Your task to perform on an android device: Go to display settings Image 0: 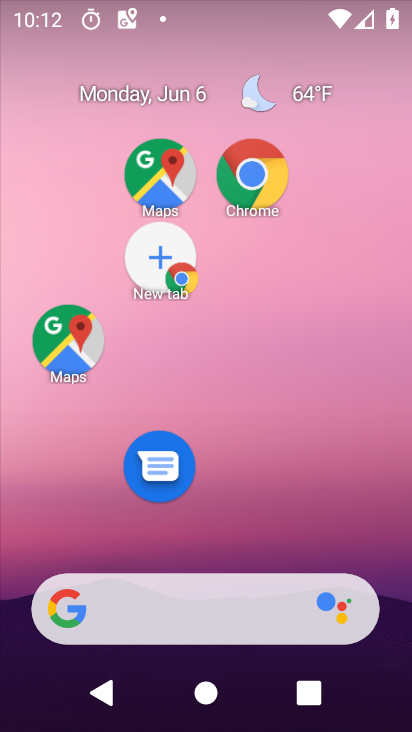
Step 0: click (229, 40)
Your task to perform on an android device: Go to display settings Image 1: 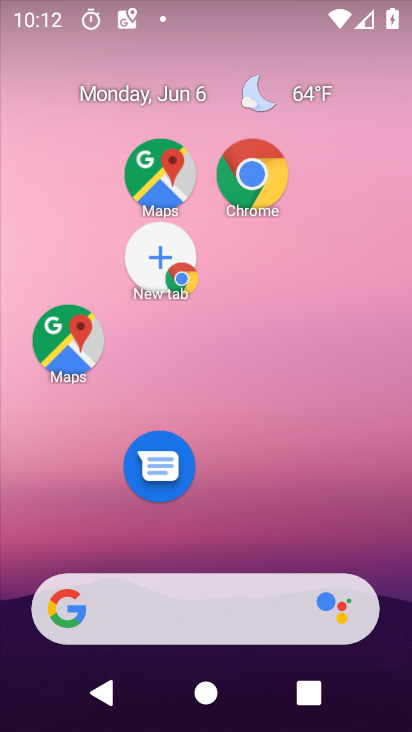
Step 1: drag from (244, 694) to (234, 37)
Your task to perform on an android device: Go to display settings Image 2: 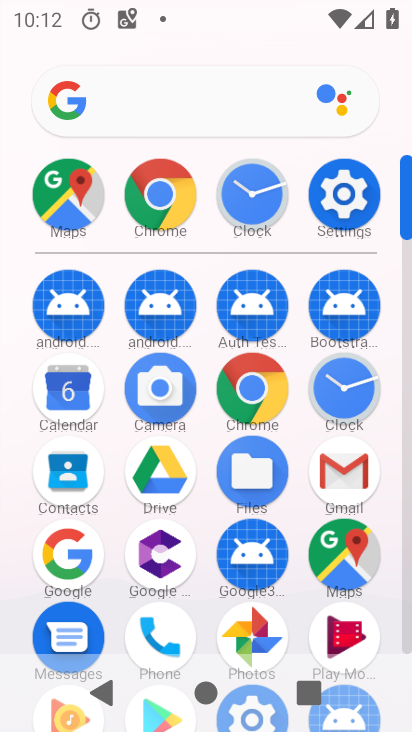
Step 2: click (352, 193)
Your task to perform on an android device: Go to display settings Image 3: 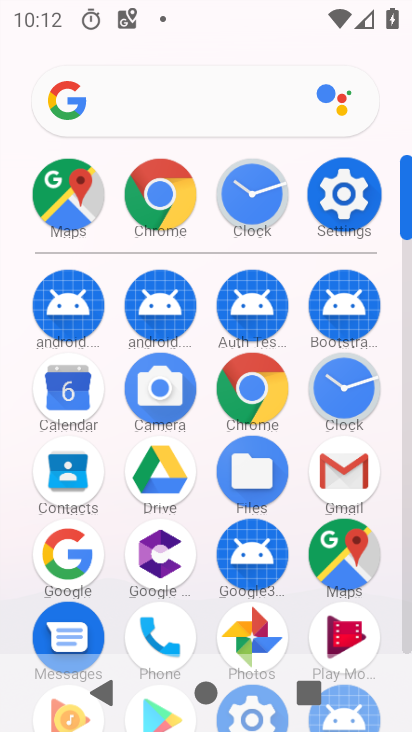
Step 3: click (352, 193)
Your task to perform on an android device: Go to display settings Image 4: 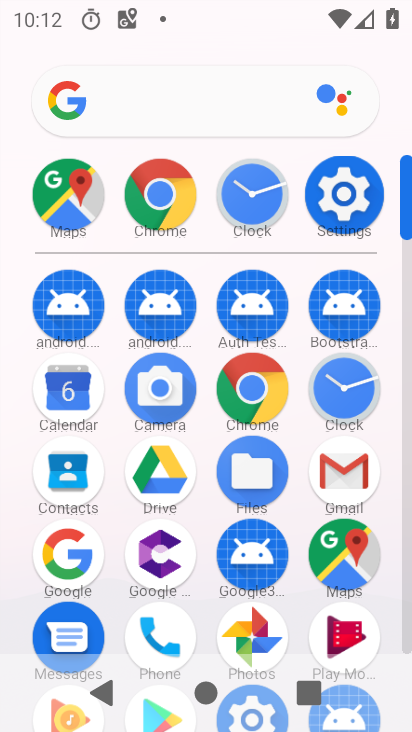
Step 4: click (352, 193)
Your task to perform on an android device: Go to display settings Image 5: 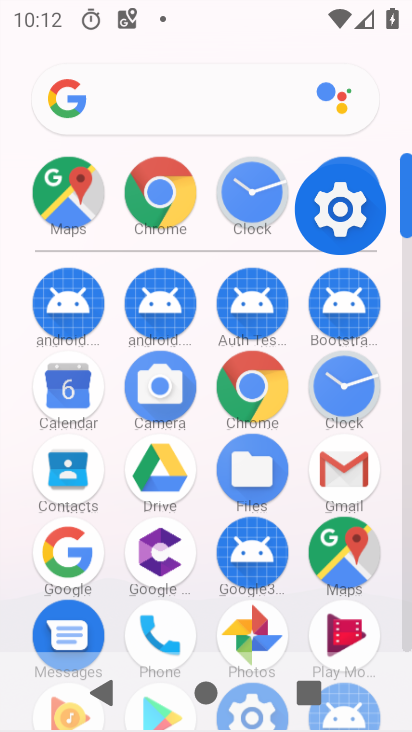
Step 5: click (352, 193)
Your task to perform on an android device: Go to display settings Image 6: 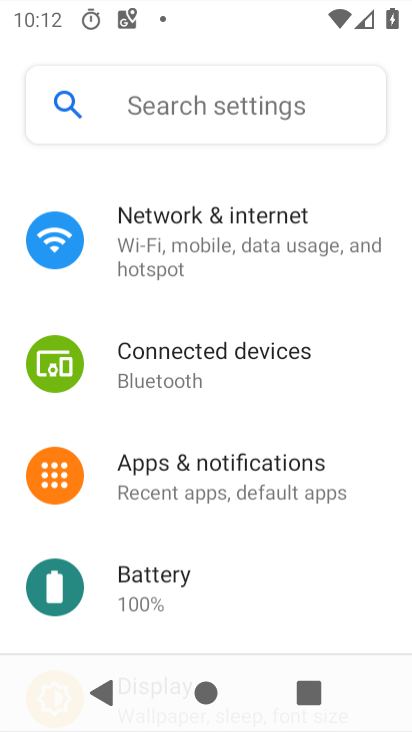
Step 6: click (352, 193)
Your task to perform on an android device: Go to display settings Image 7: 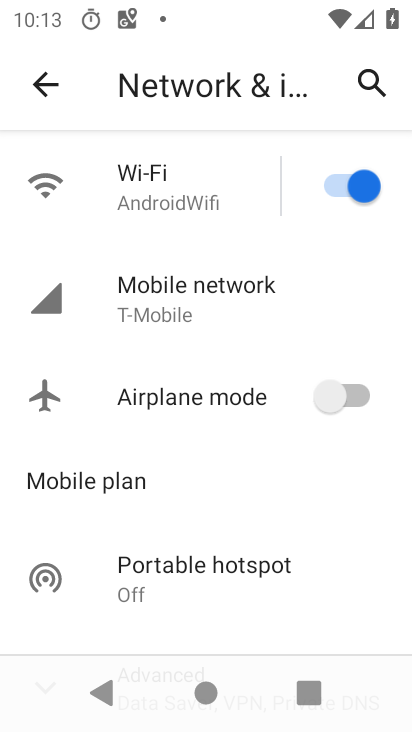
Step 7: click (43, 95)
Your task to perform on an android device: Go to display settings Image 8: 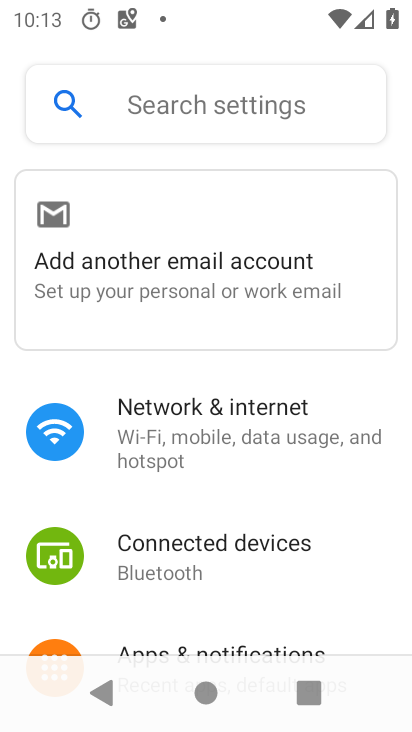
Step 8: drag from (173, 343) to (103, 91)
Your task to perform on an android device: Go to display settings Image 9: 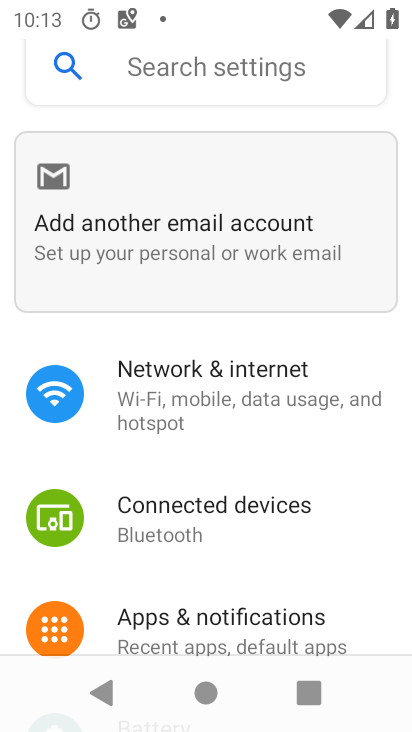
Step 9: drag from (244, 416) to (213, 218)
Your task to perform on an android device: Go to display settings Image 10: 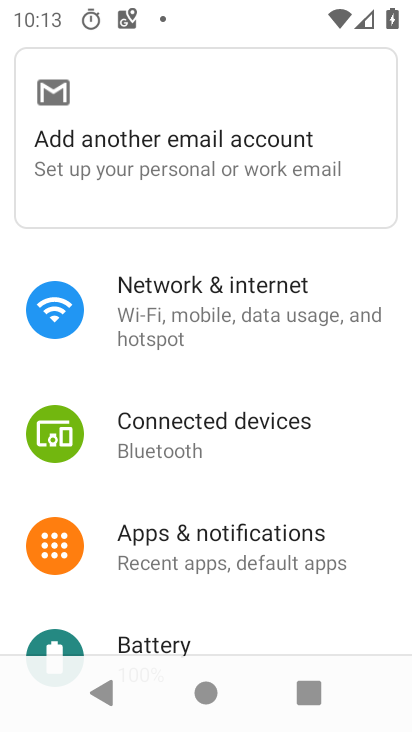
Step 10: drag from (288, 465) to (243, 211)
Your task to perform on an android device: Go to display settings Image 11: 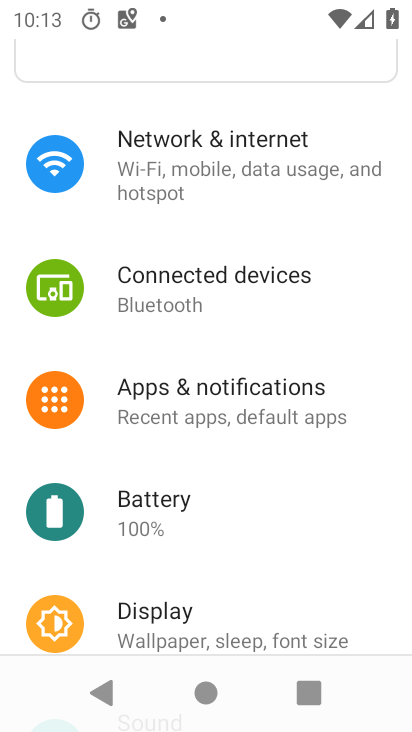
Step 11: drag from (282, 466) to (236, 224)
Your task to perform on an android device: Go to display settings Image 12: 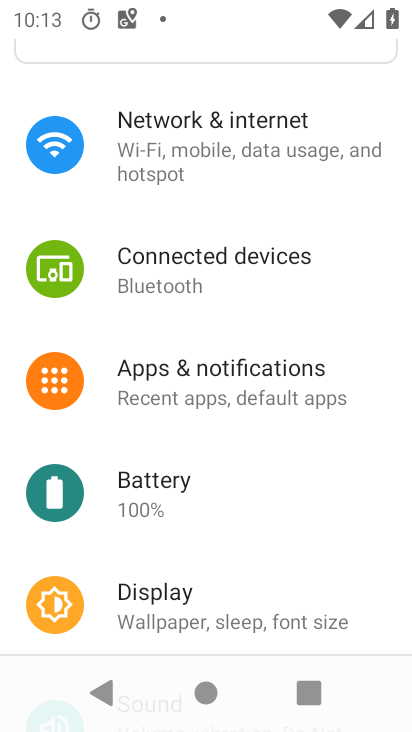
Step 12: drag from (268, 468) to (193, 191)
Your task to perform on an android device: Go to display settings Image 13: 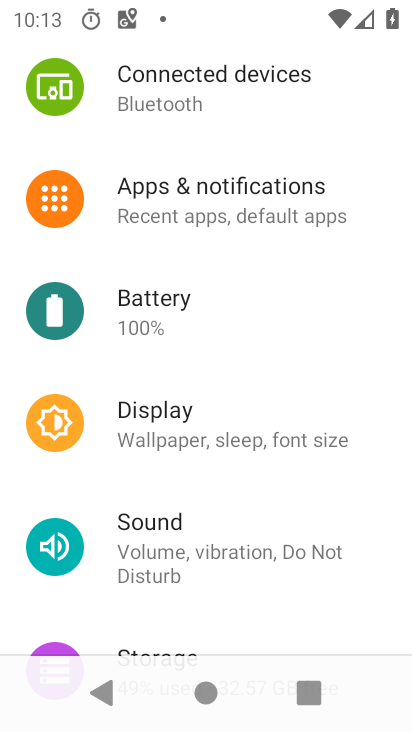
Step 13: drag from (200, 470) to (169, 125)
Your task to perform on an android device: Go to display settings Image 14: 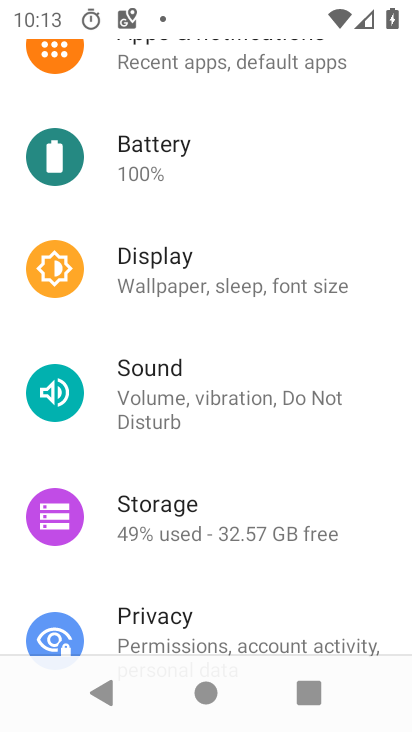
Step 14: click (131, 185)
Your task to perform on an android device: Go to display settings Image 15: 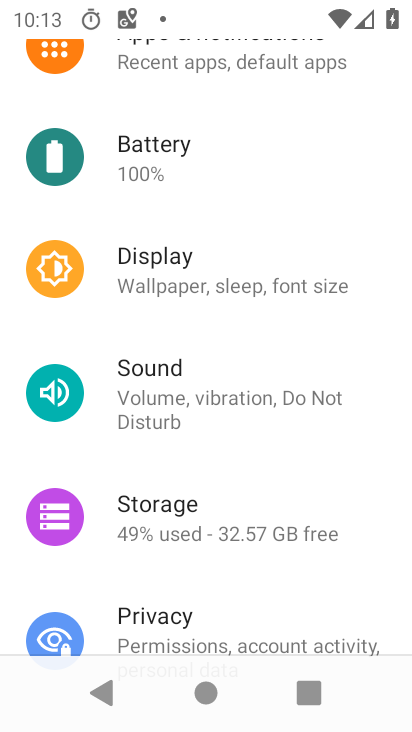
Step 15: drag from (212, 237) to (193, 94)
Your task to perform on an android device: Go to display settings Image 16: 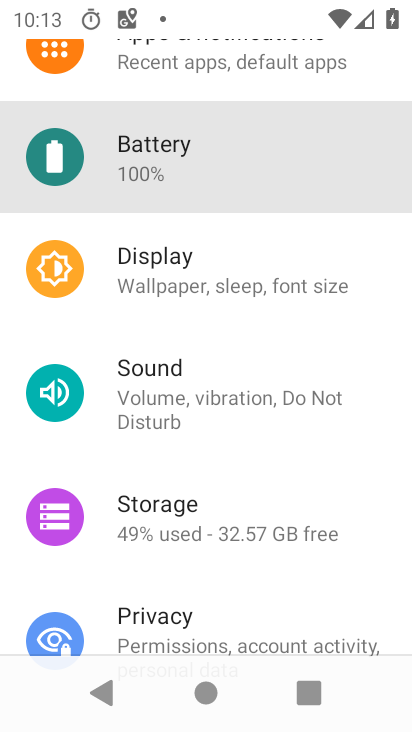
Step 16: drag from (231, 337) to (206, 174)
Your task to perform on an android device: Go to display settings Image 17: 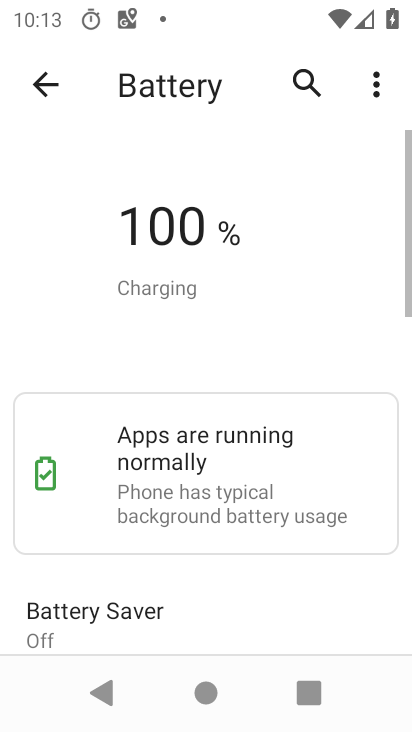
Step 17: click (44, 95)
Your task to perform on an android device: Go to display settings Image 18: 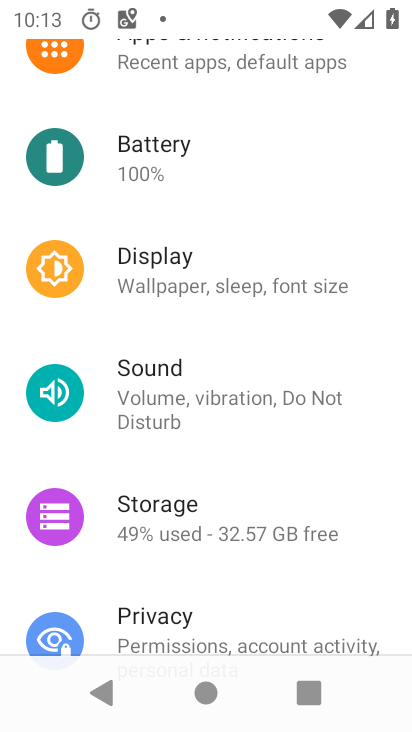
Step 18: drag from (246, 462) to (198, 107)
Your task to perform on an android device: Go to display settings Image 19: 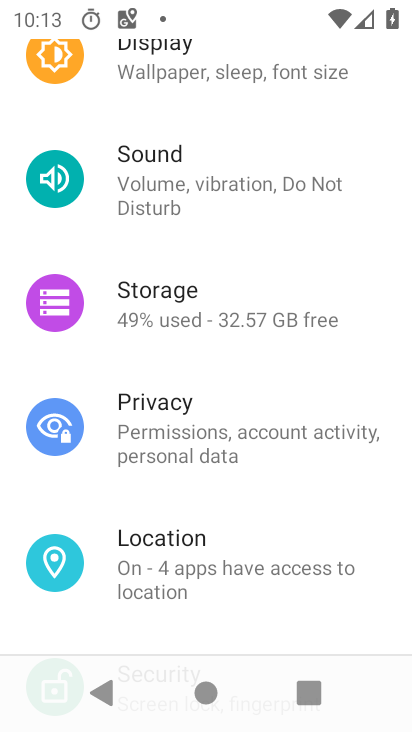
Step 19: drag from (175, 291) to (223, 571)
Your task to perform on an android device: Go to display settings Image 20: 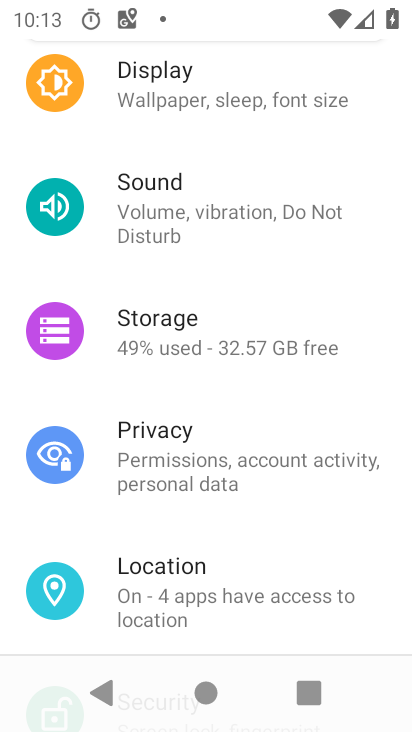
Step 20: drag from (174, 174) to (167, 469)
Your task to perform on an android device: Go to display settings Image 21: 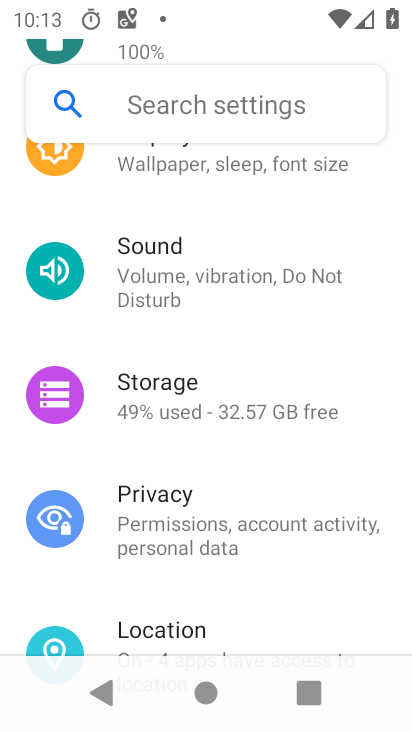
Step 21: click (118, 211)
Your task to perform on an android device: Go to display settings Image 22: 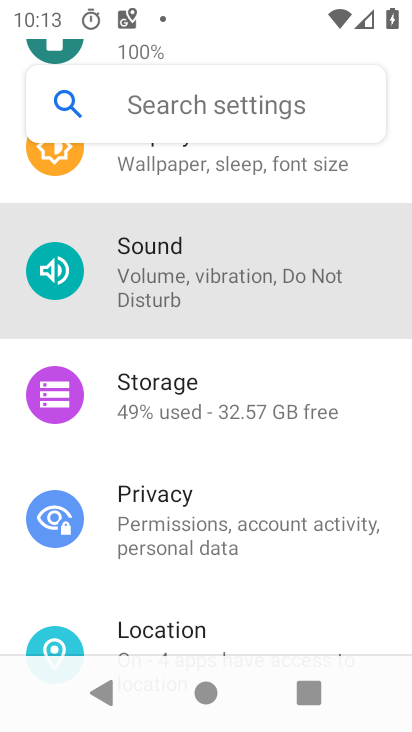
Step 22: drag from (202, 452) to (130, 138)
Your task to perform on an android device: Go to display settings Image 23: 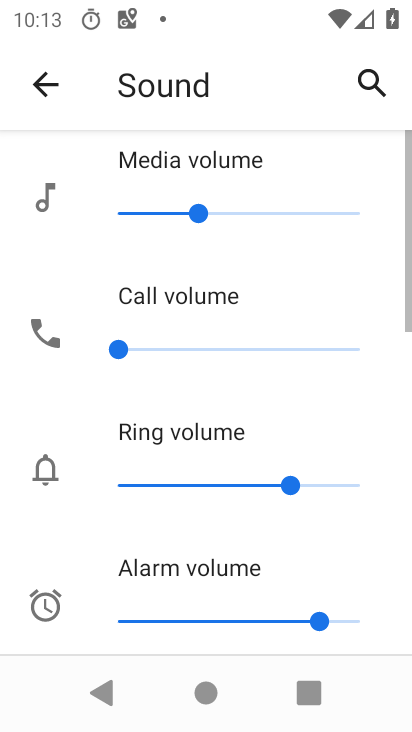
Step 23: click (173, 237)
Your task to perform on an android device: Go to display settings Image 24: 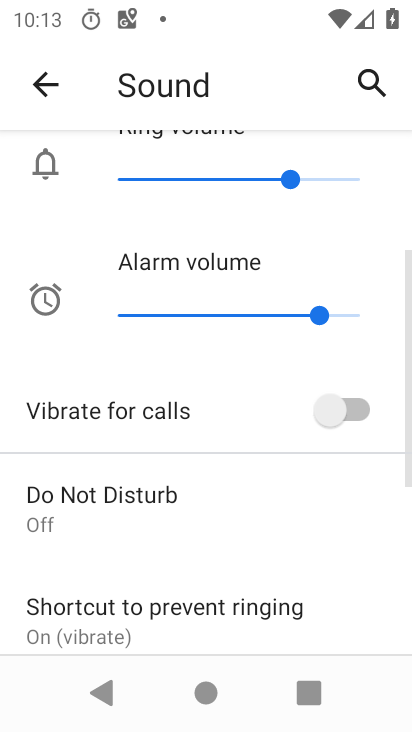
Step 24: click (190, 270)
Your task to perform on an android device: Go to display settings Image 25: 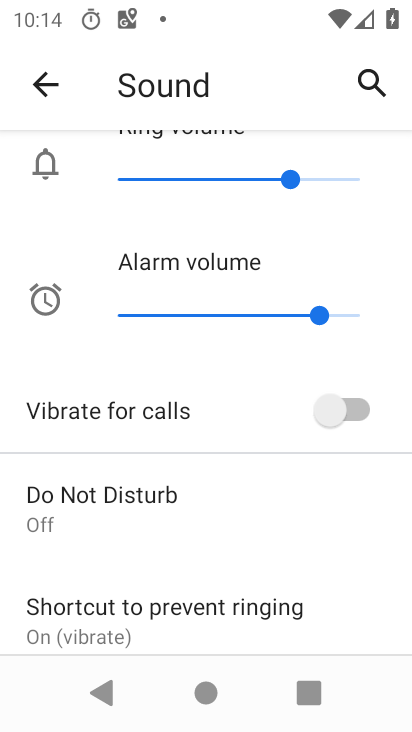
Step 25: click (36, 83)
Your task to perform on an android device: Go to display settings Image 26: 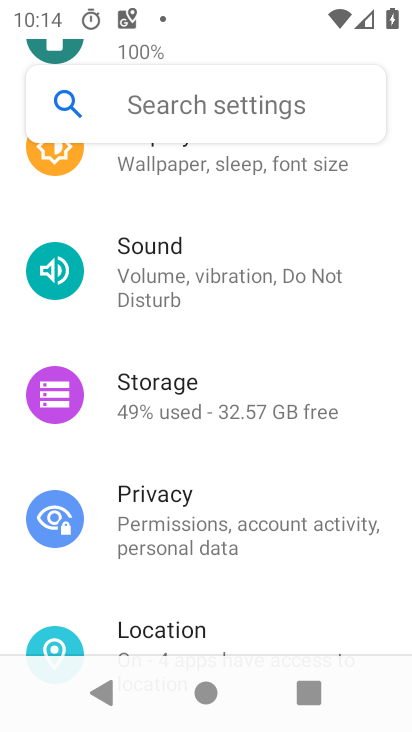
Step 26: click (49, 87)
Your task to perform on an android device: Go to display settings Image 27: 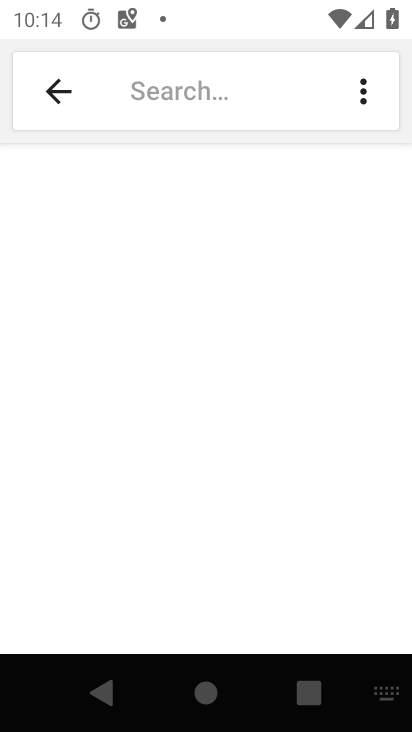
Step 27: drag from (202, 517) to (156, 165)
Your task to perform on an android device: Go to display settings Image 28: 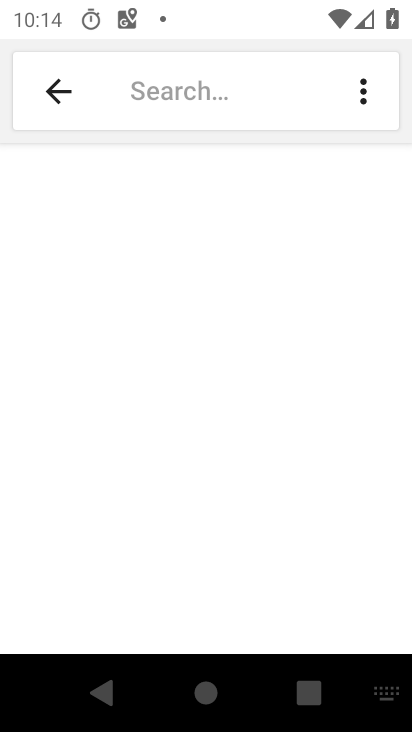
Step 28: drag from (238, 413) to (163, 241)
Your task to perform on an android device: Go to display settings Image 29: 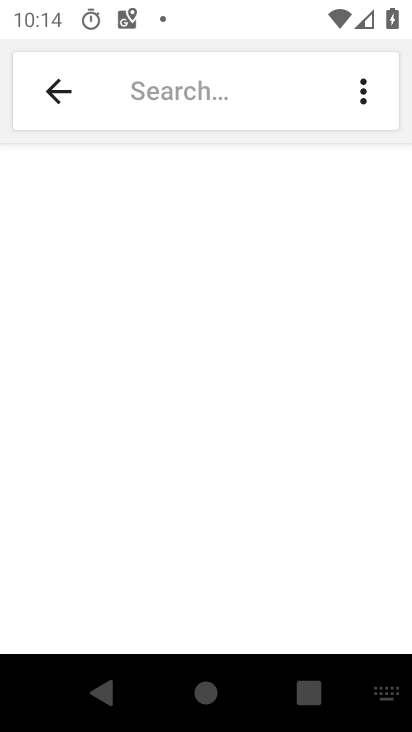
Step 29: click (52, 90)
Your task to perform on an android device: Go to display settings Image 30: 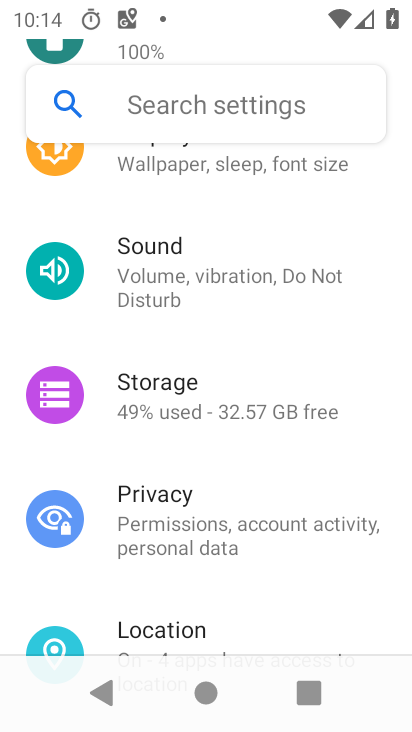
Step 30: drag from (232, 449) to (182, 115)
Your task to perform on an android device: Go to display settings Image 31: 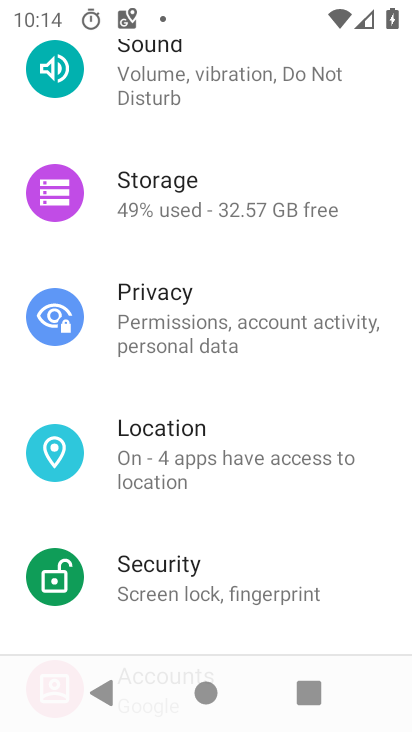
Step 31: drag from (252, 466) to (207, 275)
Your task to perform on an android device: Go to display settings Image 32: 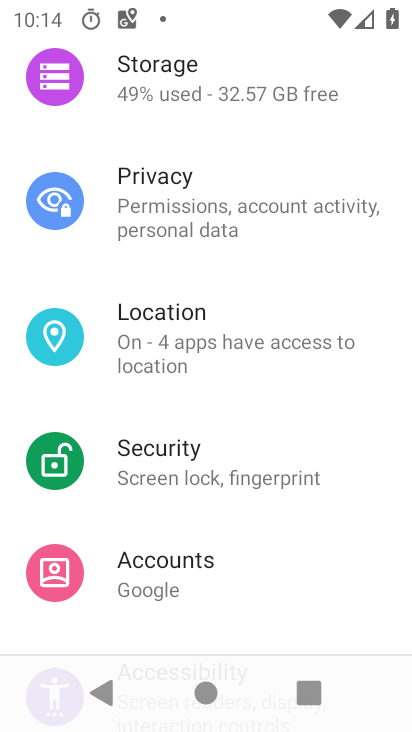
Step 32: drag from (168, 248) to (223, 524)
Your task to perform on an android device: Go to display settings Image 33: 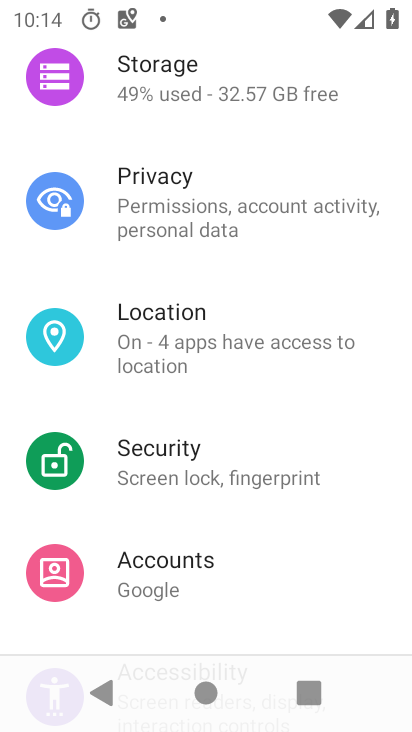
Step 33: drag from (212, 105) to (250, 527)
Your task to perform on an android device: Go to display settings Image 34: 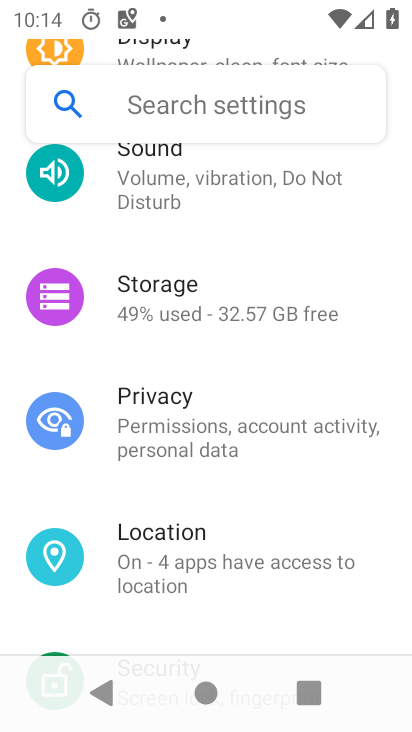
Step 34: drag from (183, 372) to (238, 572)
Your task to perform on an android device: Go to display settings Image 35: 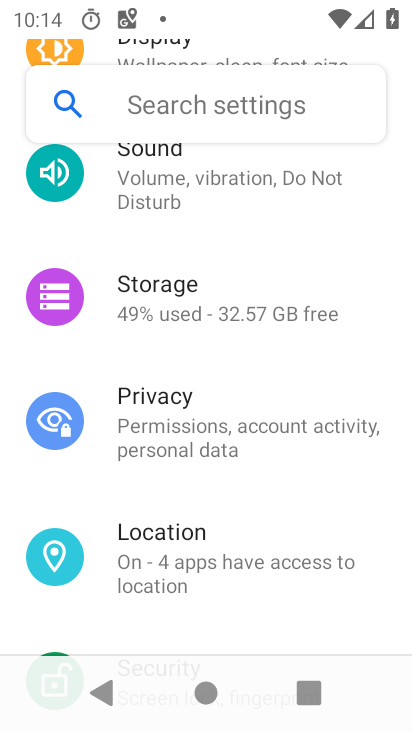
Step 35: drag from (235, 566) to (250, 641)
Your task to perform on an android device: Go to display settings Image 36: 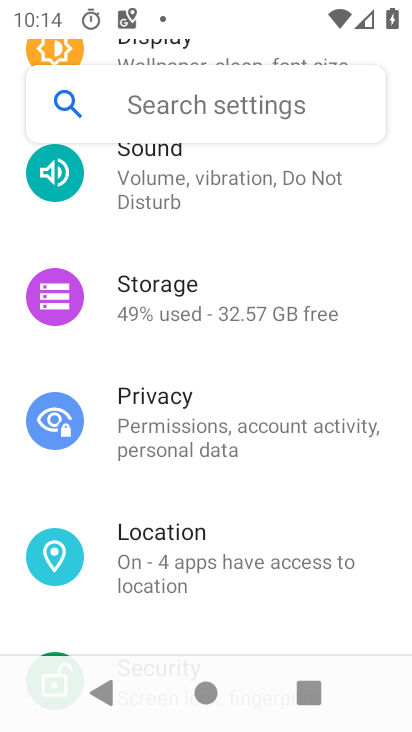
Step 36: drag from (142, 203) to (235, 514)
Your task to perform on an android device: Go to display settings Image 37: 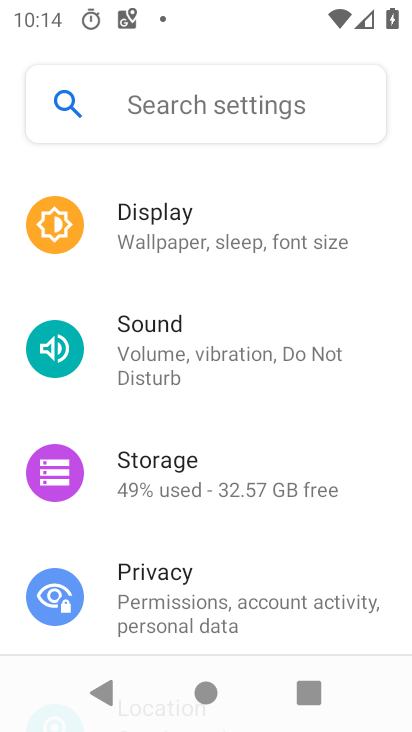
Step 37: click (174, 232)
Your task to perform on an android device: Go to display settings Image 38: 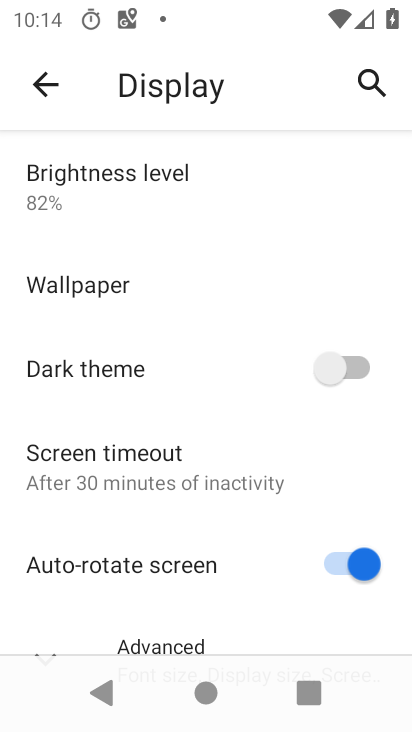
Step 38: drag from (130, 431) to (127, 172)
Your task to perform on an android device: Go to display settings Image 39: 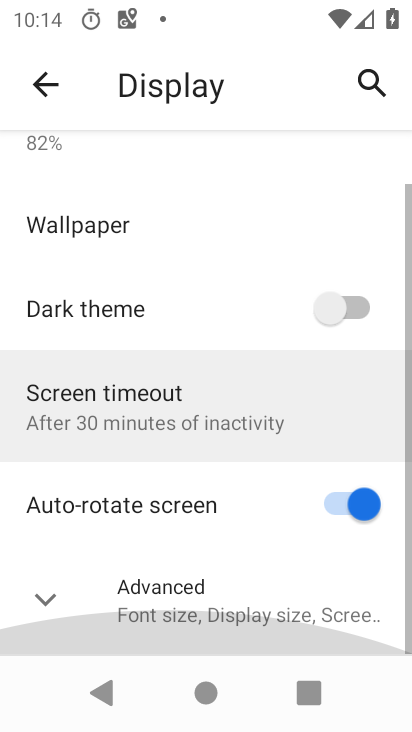
Step 39: drag from (121, 496) to (108, 192)
Your task to perform on an android device: Go to display settings Image 40: 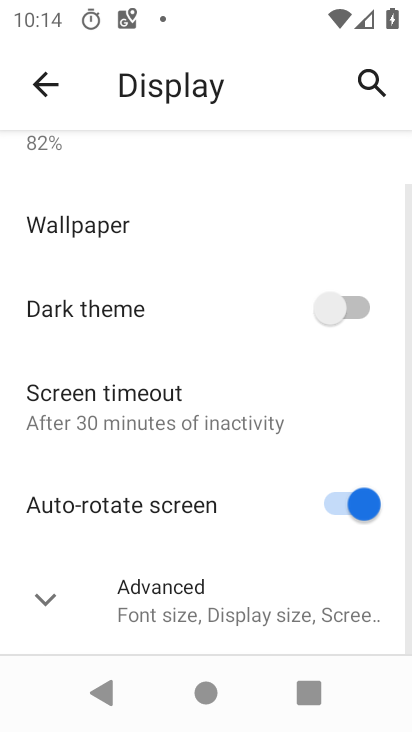
Step 40: drag from (161, 582) to (156, 343)
Your task to perform on an android device: Go to display settings Image 41: 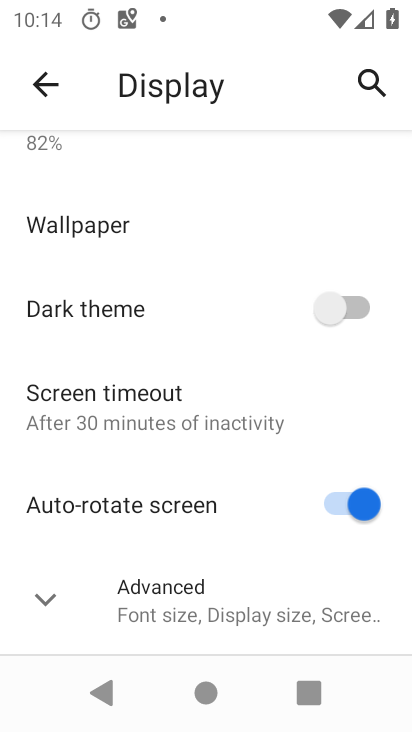
Step 41: click (33, 87)
Your task to perform on an android device: Go to display settings Image 42: 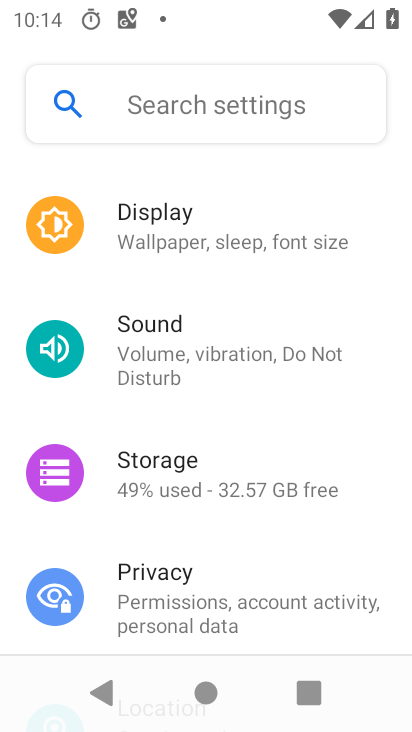
Step 42: click (173, 245)
Your task to perform on an android device: Go to display settings Image 43: 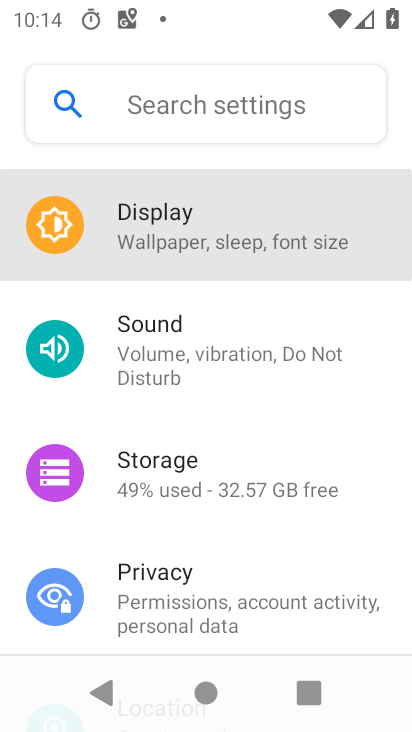
Step 43: click (173, 240)
Your task to perform on an android device: Go to display settings Image 44: 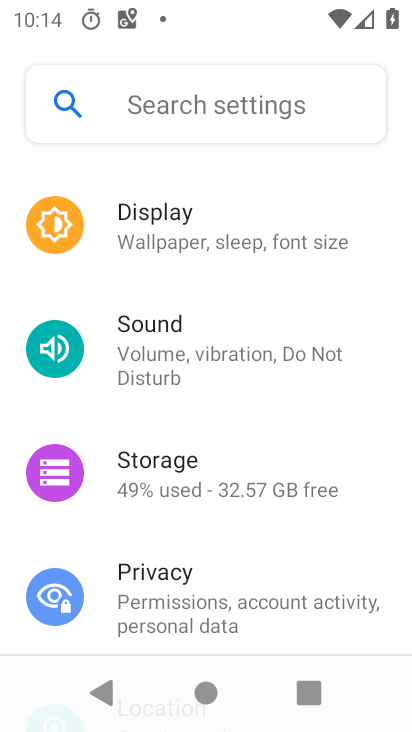
Step 44: click (173, 240)
Your task to perform on an android device: Go to display settings Image 45: 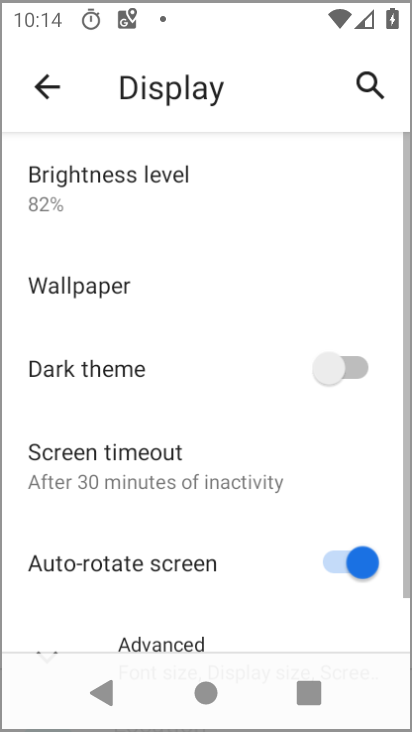
Step 45: click (173, 239)
Your task to perform on an android device: Go to display settings Image 46: 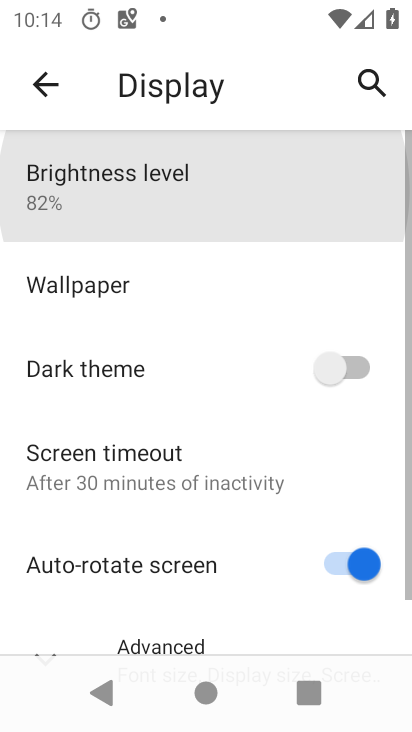
Step 46: click (172, 238)
Your task to perform on an android device: Go to display settings Image 47: 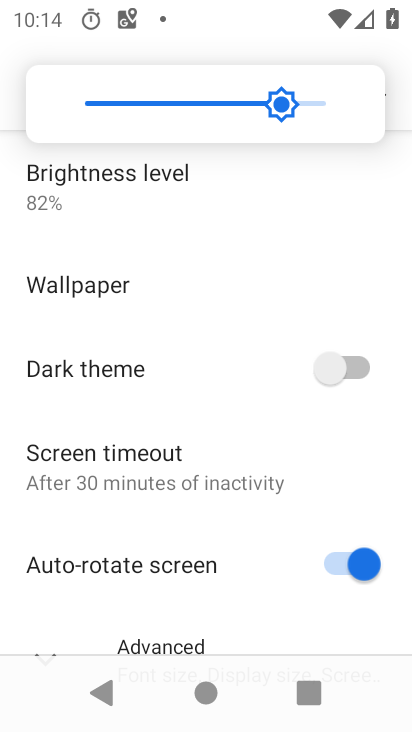
Step 47: task complete